Your task to perform on an android device: delete location history Image 0: 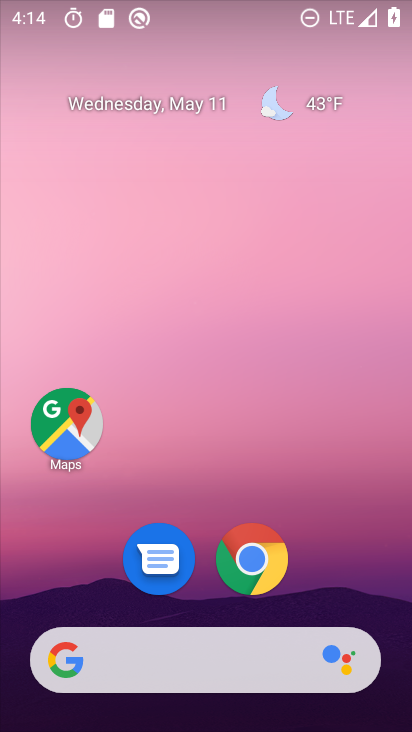
Step 0: drag from (351, 534) to (298, 87)
Your task to perform on an android device: delete location history Image 1: 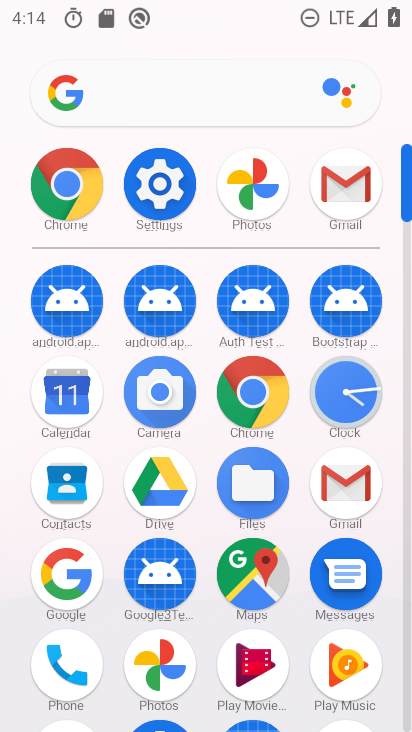
Step 1: click (159, 192)
Your task to perform on an android device: delete location history Image 2: 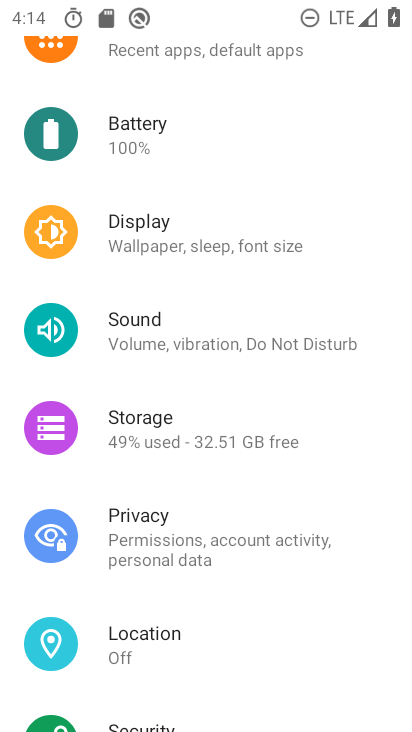
Step 2: click (210, 630)
Your task to perform on an android device: delete location history Image 3: 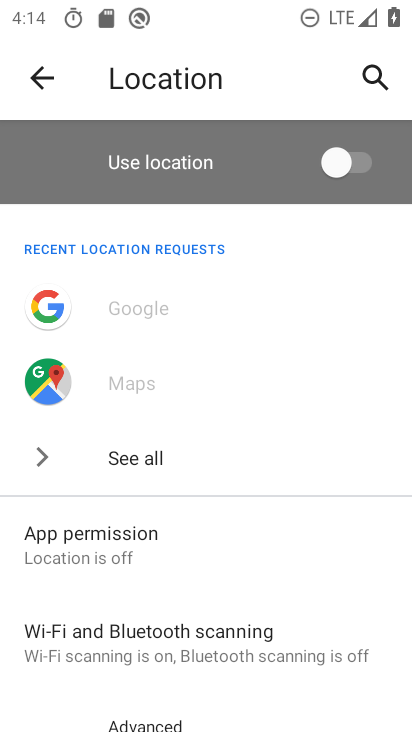
Step 3: drag from (235, 614) to (226, 285)
Your task to perform on an android device: delete location history Image 4: 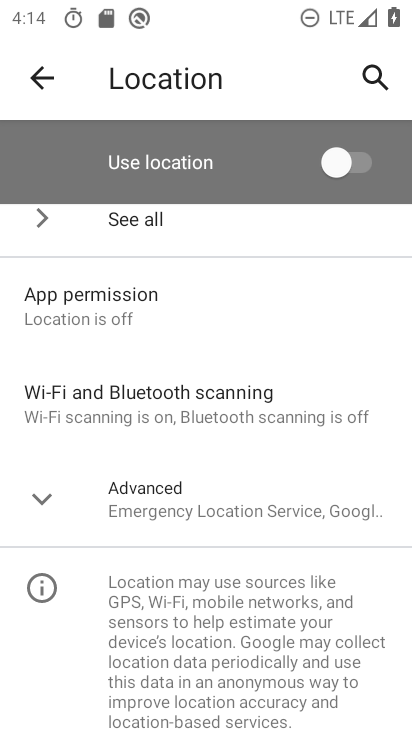
Step 4: click (191, 491)
Your task to perform on an android device: delete location history Image 5: 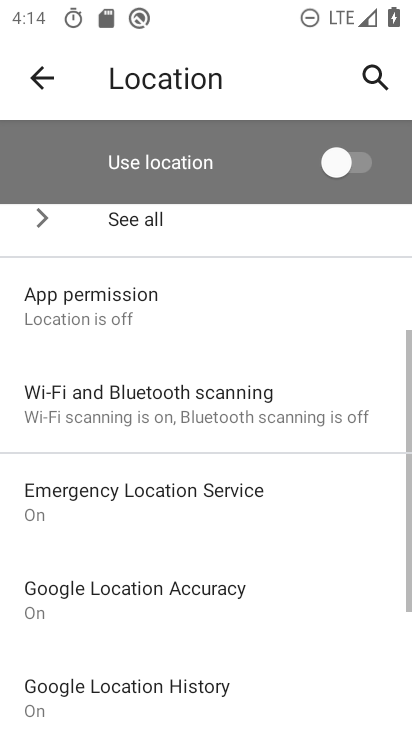
Step 5: drag from (231, 628) to (263, 308)
Your task to perform on an android device: delete location history Image 6: 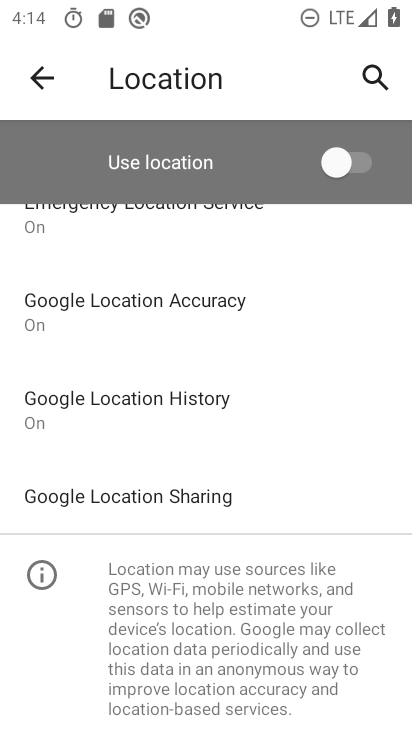
Step 6: click (200, 399)
Your task to perform on an android device: delete location history Image 7: 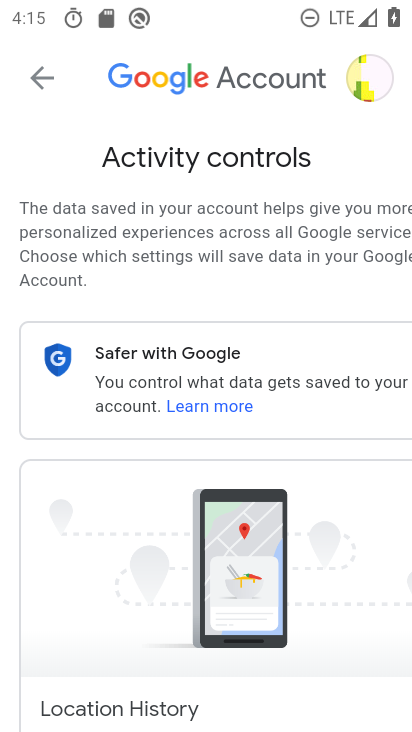
Step 7: drag from (220, 637) to (280, 181)
Your task to perform on an android device: delete location history Image 8: 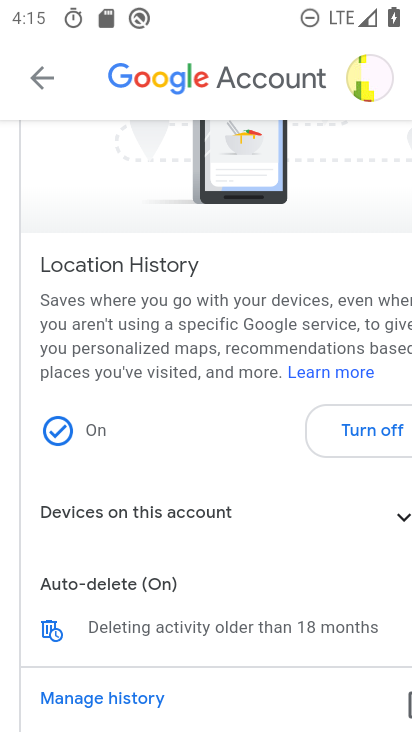
Step 8: click (42, 624)
Your task to perform on an android device: delete location history Image 9: 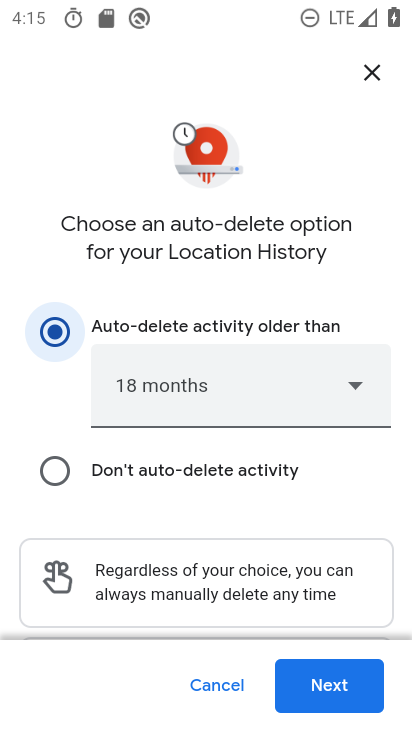
Step 9: click (56, 472)
Your task to perform on an android device: delete location history Image 10: 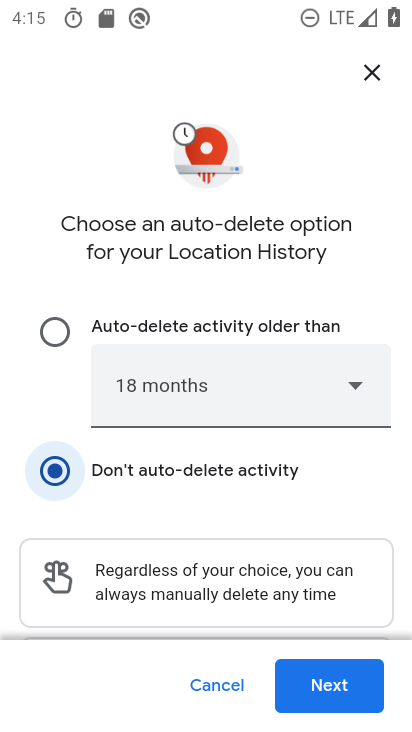
Step 10: click (341, 695)
Your task to perform on an android device: delete location history Image 11: 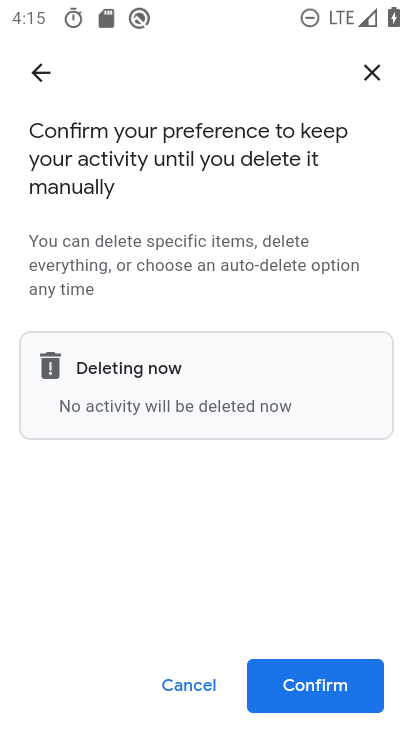
Step 11: click (328, 681)
Your task to perform on an android device: delete location history Image 12: 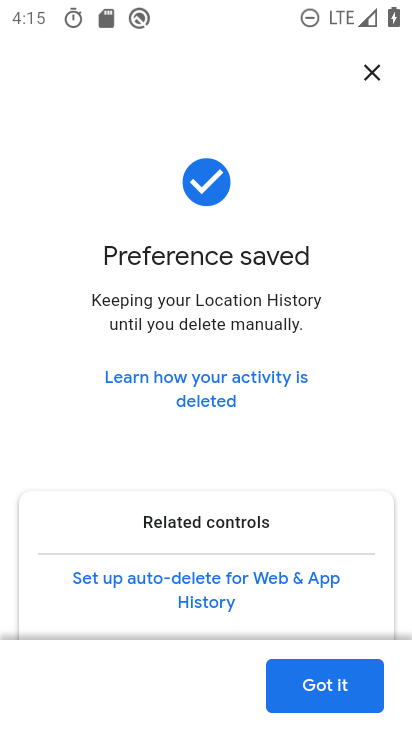
Step 12: click (339, 685)
Your task to perform on an android device: delete location history Image 13: 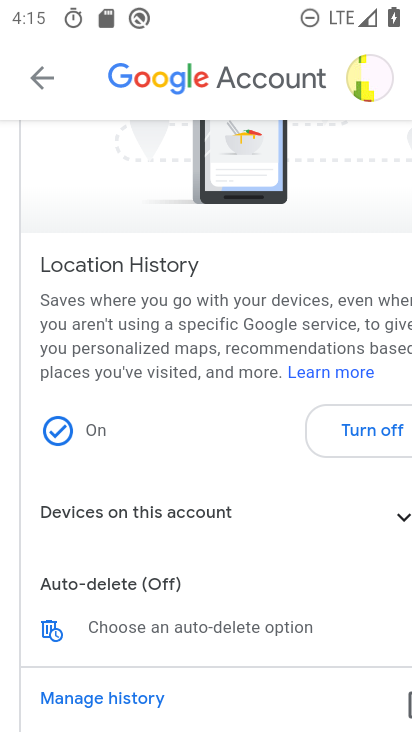
Step 13: task complete